Your task to perform on an android device: Show me popular videos on Youtube Image 0: 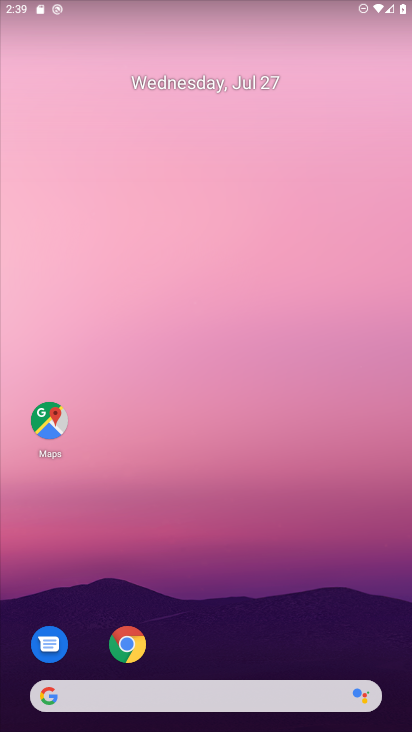
Step 0: drag from (219, 606) to (232, 23)
Your task to perform on an android device: Show me popular videos on Youtube Image 1: 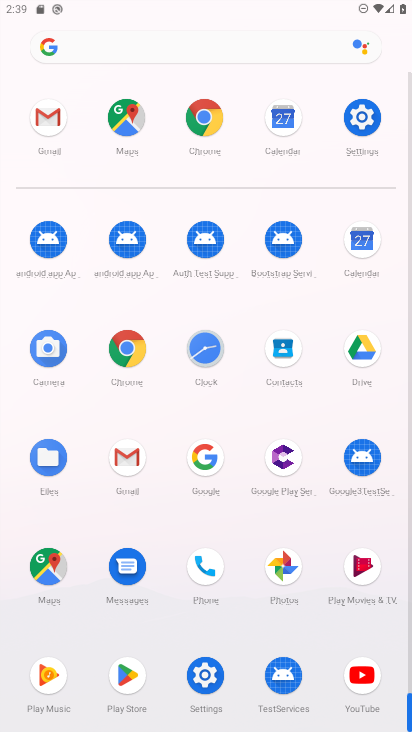
Step 1: click (365, 667)
Your task to perform on an android device: Show me popular videos on Youtube Image 2: 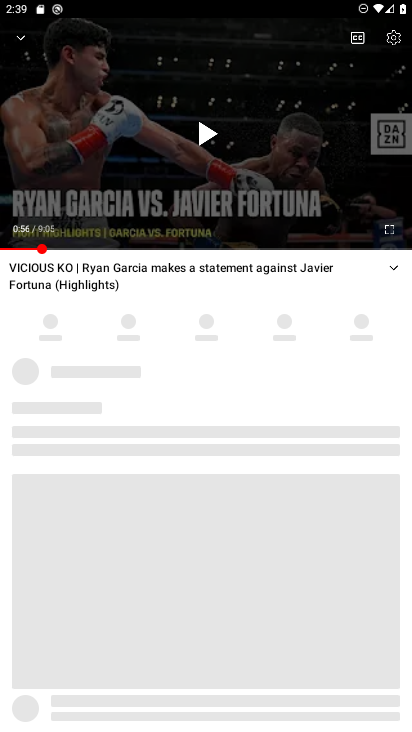
Step 2: click (20, 33)
Your task to perform on an android device: Show me popular videos on Youtube Image 3: 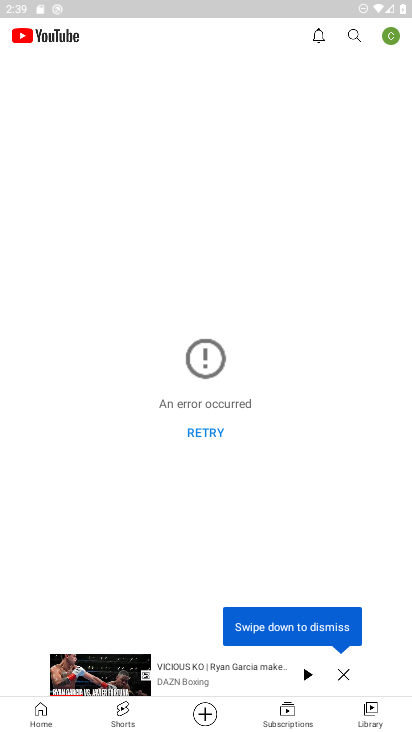
Step 3: click (351, 681)
Your task to perform on an android device: Show me popular videos on Youtube Image 4: 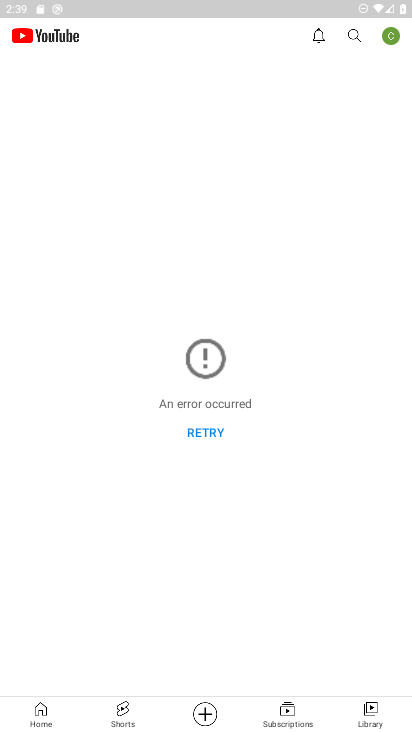
Step 4: click (45, 715)
Your task to perform on an android device: Show me popular videos on Youtube Image 5: 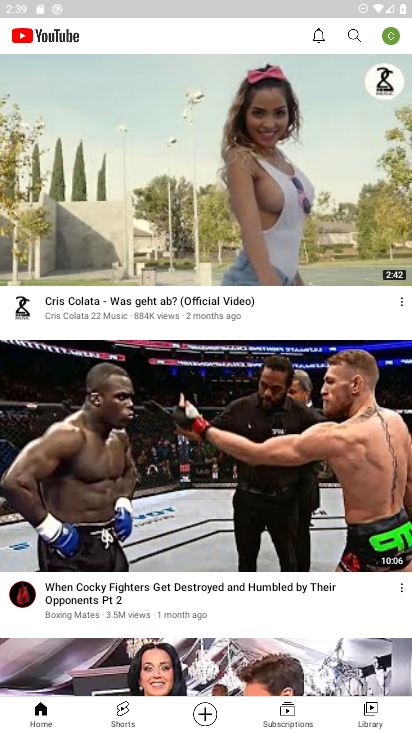
Step 5: drag from (60, 99) to (73, 365)
Your task to perform on an android device: Show me popular videos on Youtube Image 6: 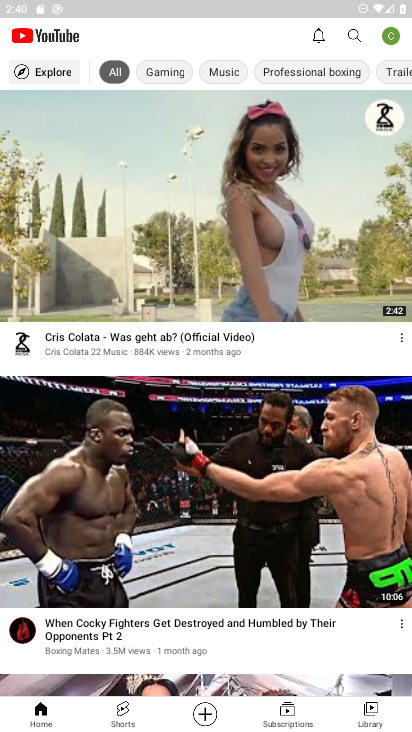
Step 6: click (44, 70)
Your task to perform on an android device: Show me popular videos on Youtube Image 7: 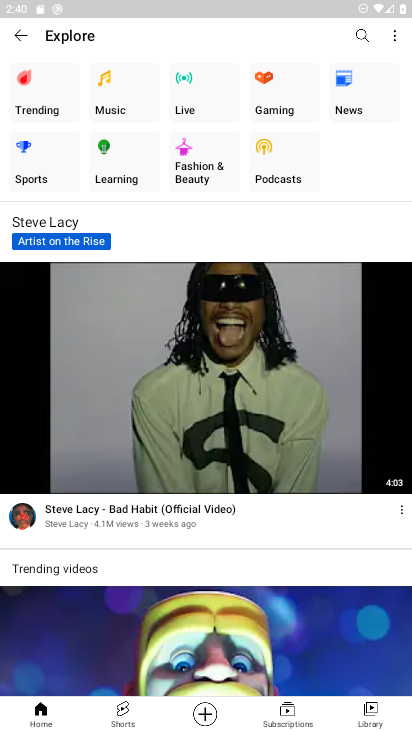
Step 7: click (52, 103)
Your task to perform on an android device: Show me popular videos on Youtube Image 8: 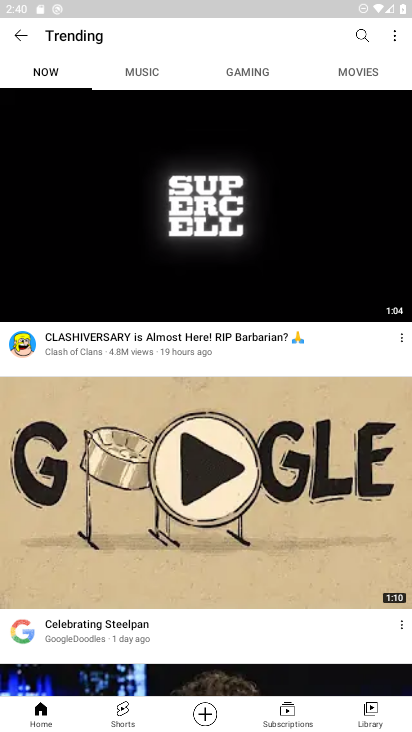
Step 8: task complete